Your task to perform on an android device: Go to settings Image 0: 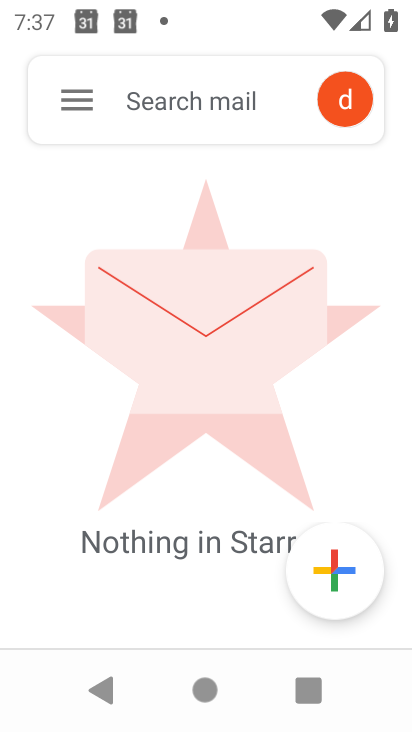
Step 0: press home button
Your task to perform on an android device: Go to settings Image 1: 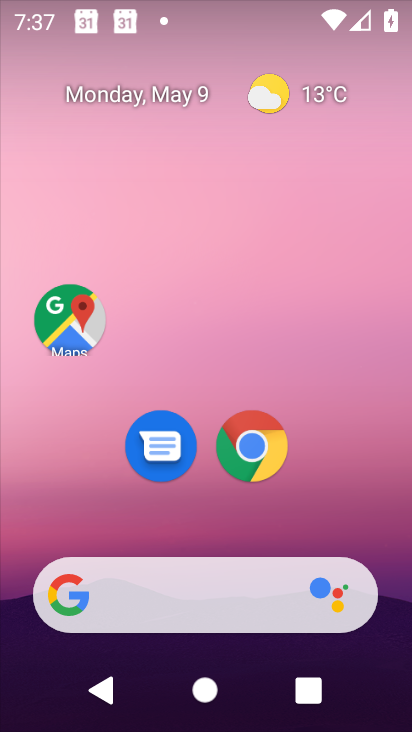
Step 1: drag from (216, 480) to (235, 234)
Your task to perform on an android device: Go to settings Image 2: 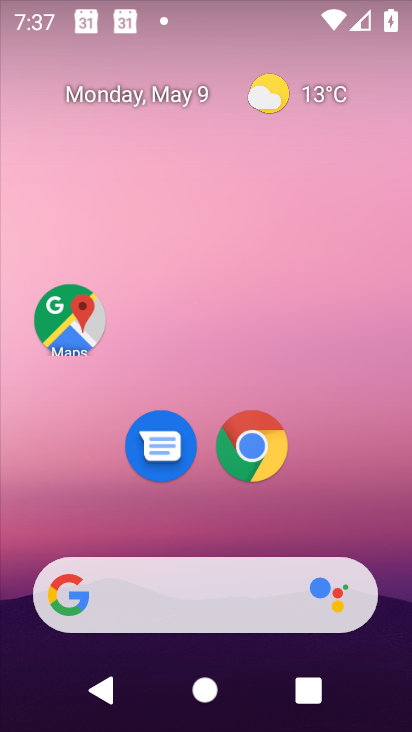
Step 2: drag from (285, 495) to (365, 138)
Your task to perform on an android device: Go to settings Image 3: 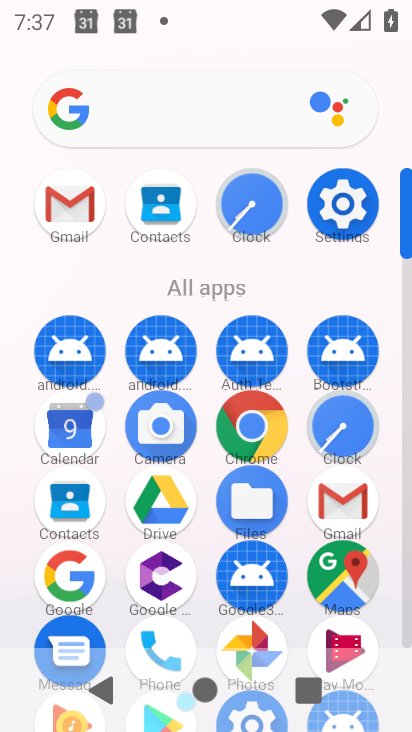
Step 3: click (343, 224)
Your task to perform on an android device: Go to settings Image 4: 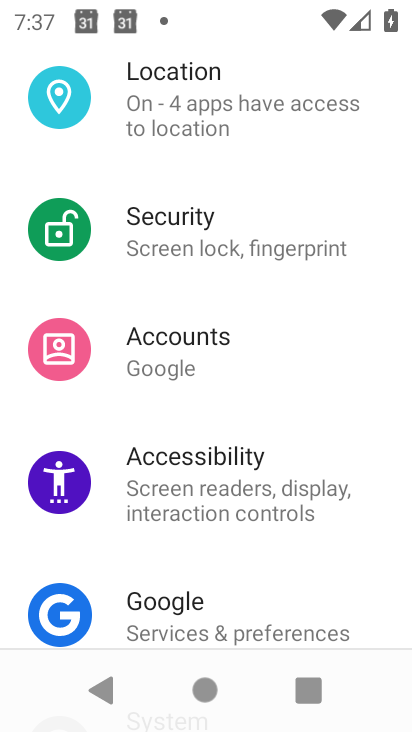
Step 4: task complete